Your task to perform on an android device: remove spam from my inbox in the gmail app Image 0: 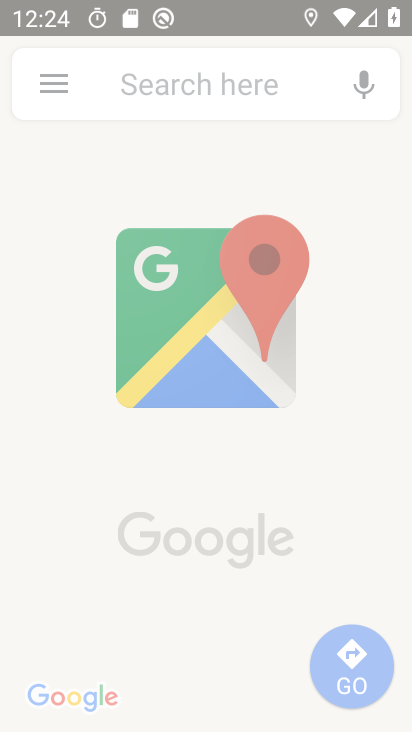
Step 0: drag from (354, 590) to (401, 116)
Your task to perform on an android device: remove spam from my inbox in the gmail app Image 1: 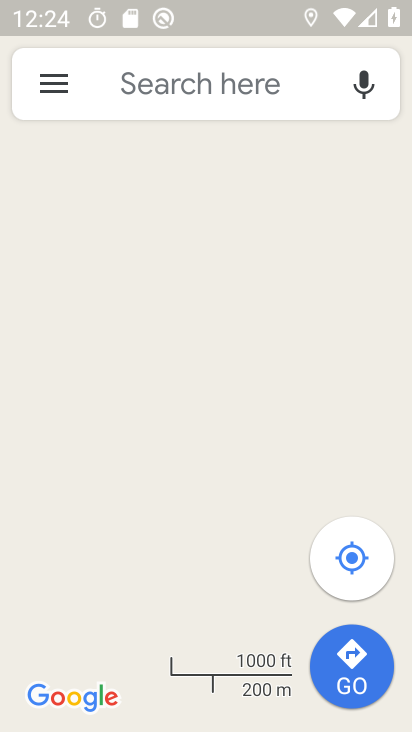
Step 1: press home button
Your task to perform on an android device: remove spam from my inbox in the gmail app Image 2: 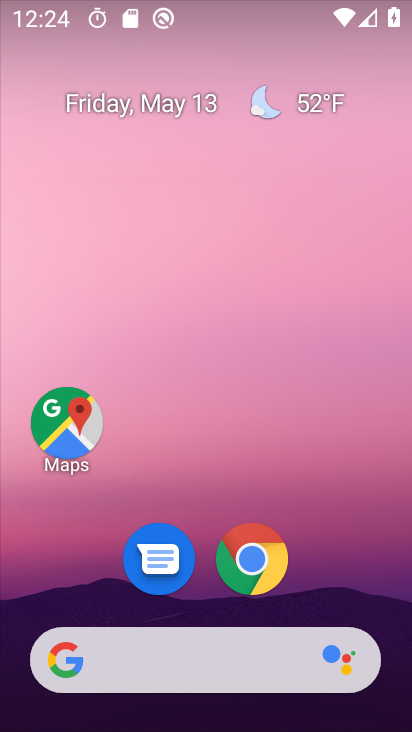
Step 2: drag from (338, 522) to (336, 145)
Your task to perform on an android device: remove spam from my inbox in the gmail app Image 3: 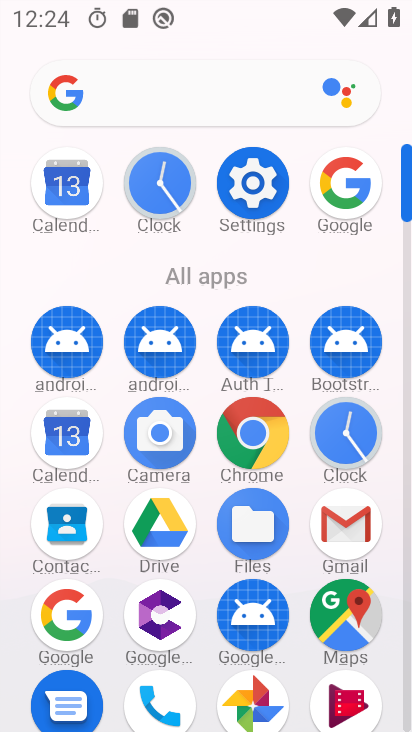
Step 3: click (347, 525)
Your task to perform on an android device: remove spam from my inbox in the gmail app Image 4: 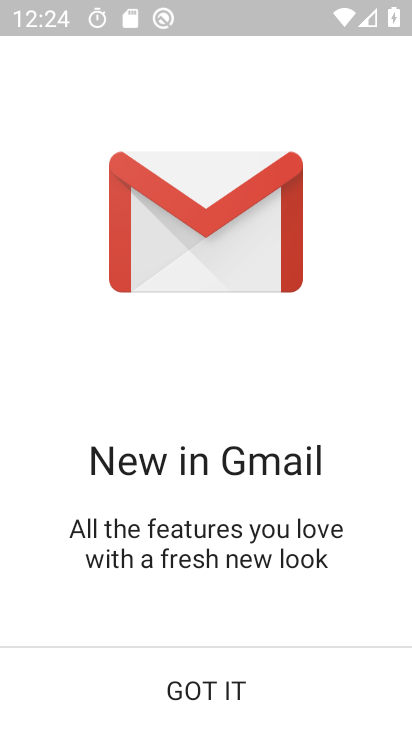
Step 4: click (221, 662)
Your task to perform on an android device: remove spam from my inbox in the gmail app Image 5: 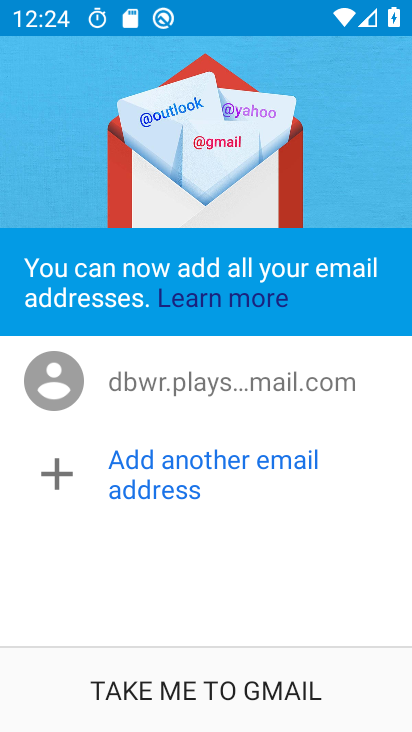
Step 5: click (226, 691)
Your task to perform on an android device: remove spam from my inbox in the gmail app Image 6: 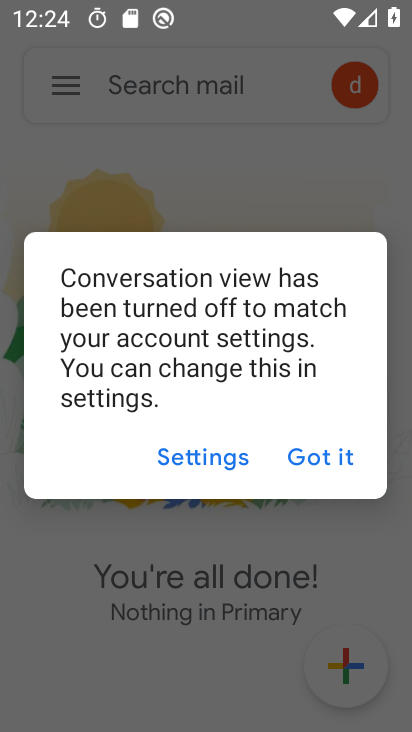
Step 6: click (321, 460)
Your task to perform on an android device: remove spam from my inbox in the gmail app Image 7: 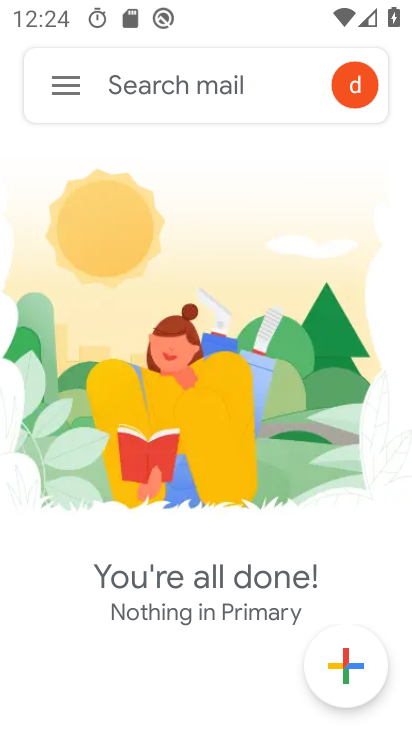
Step 7: click (57, 89)
Your task to perform on an android device: remove spam from my inbox in the gmail app Image 8: 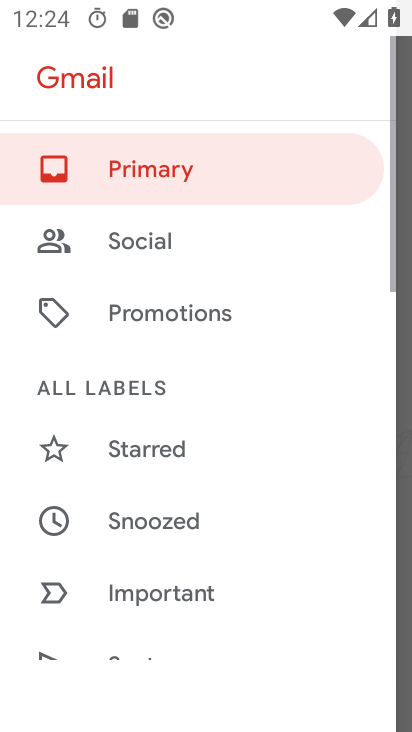
Step 8: drag from (197, 620) to (237, 255)
Your task to perform on an android device: remove spam from my inbox in the gmail app Image 9: 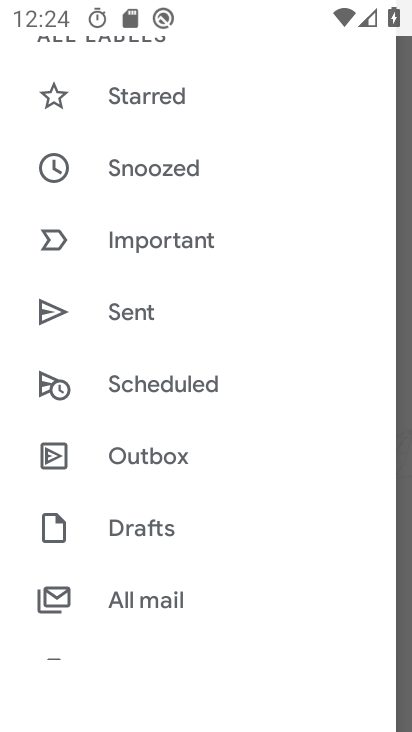
Step 9: drag from (266, 538) to (287, 285)
Your task to perform on an android device: remove spam from my inbox in the gmail app Image 10: 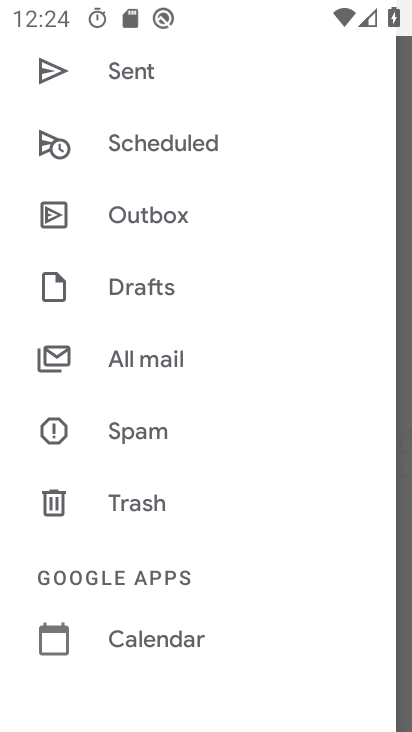
Step 10: click (197, 448)
Your task to perform on an android device: remove spam from my inbox in the gmail app Image 11: 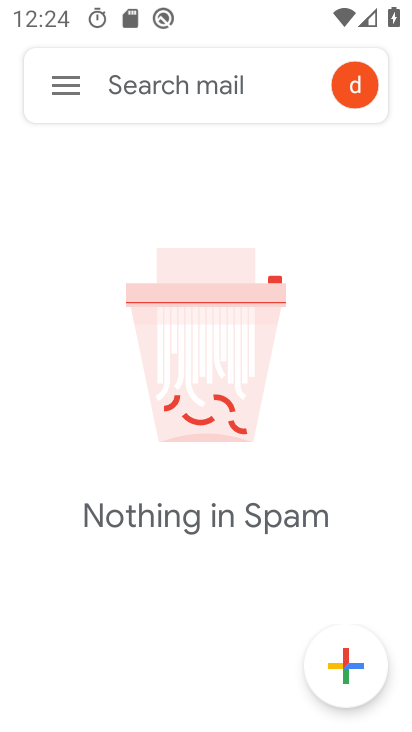
Step 11: task complete